Your task to perform on an android device: Toggle the flashlight Image 0: 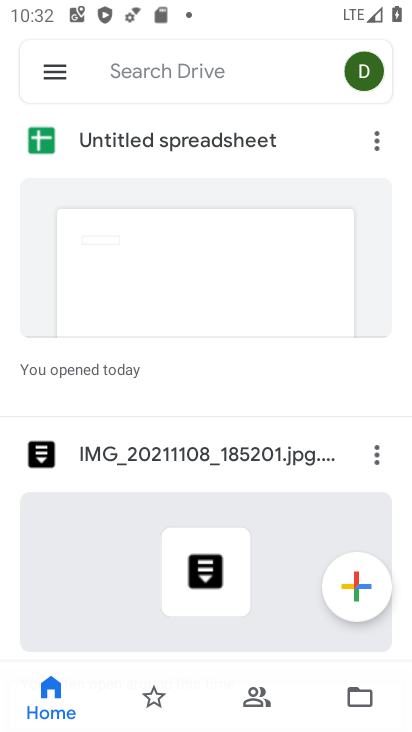
Step 0: press home button
Your task to perform on an android device: Toggle the flashlight Image 1: 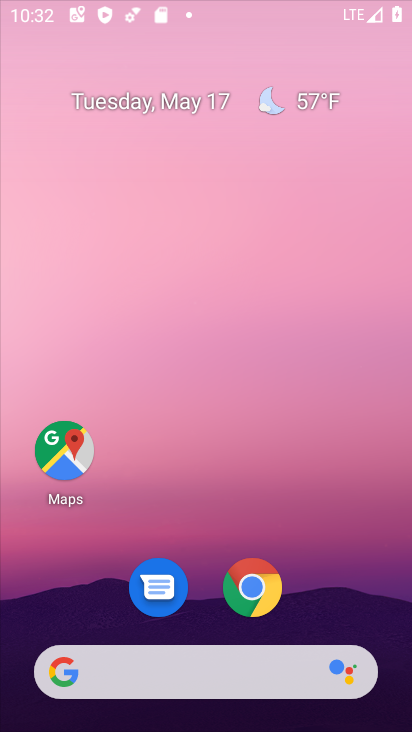
Step 1: drag from (377, 637) to (255, 93)
Your task to perform on an android device: Toggle the flashlight Image 2: 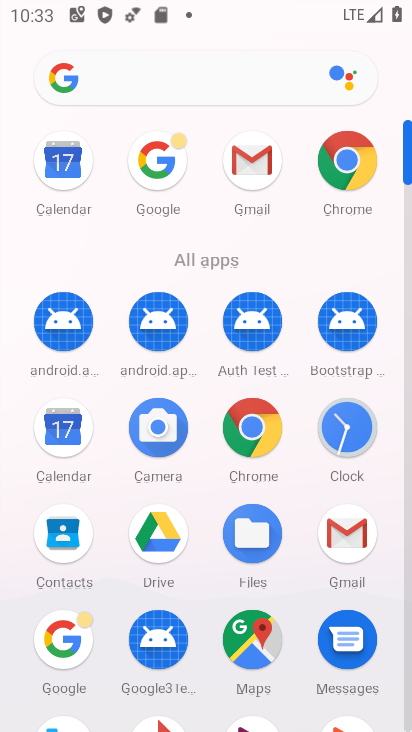
Step 2: drag from (311, 608) to (240, 133)
Your task to perform on an android device: Toggle the flashlight Image 3: 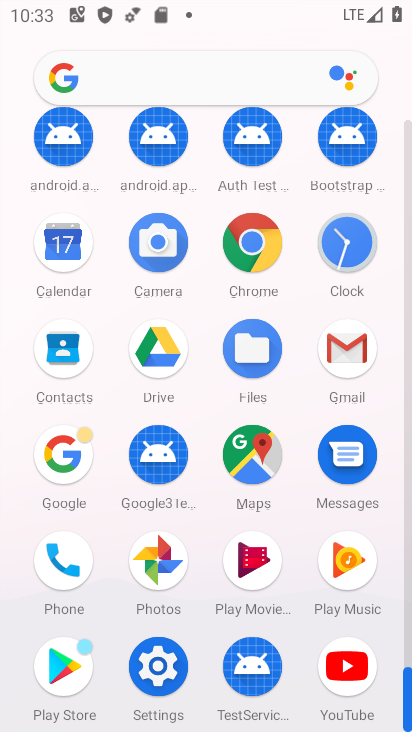
Step 3: click (136, 676)
Your task to perform on an android device: Toggle the flashlight Image 4: 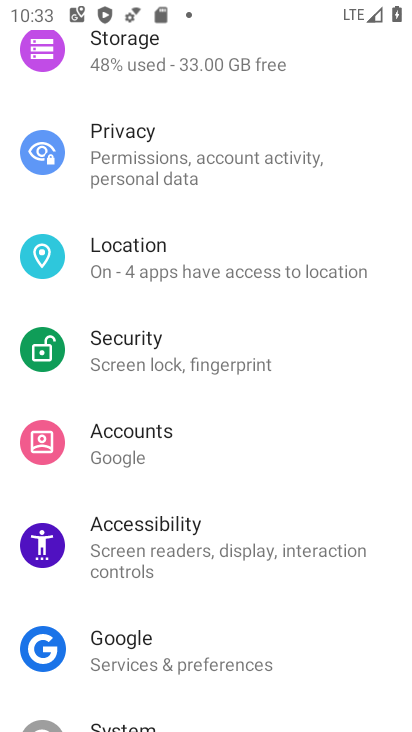
Step 4: task complete